Your task to perform on an android device: open chrome and create a bookmark for the current page Image 0: 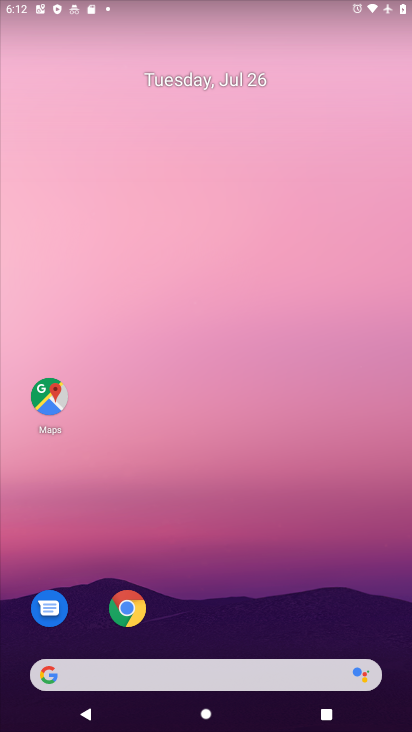
Step 0: press home button
Your task to perform on an android device: open chrome and create a bookmark for the current page Image 1: 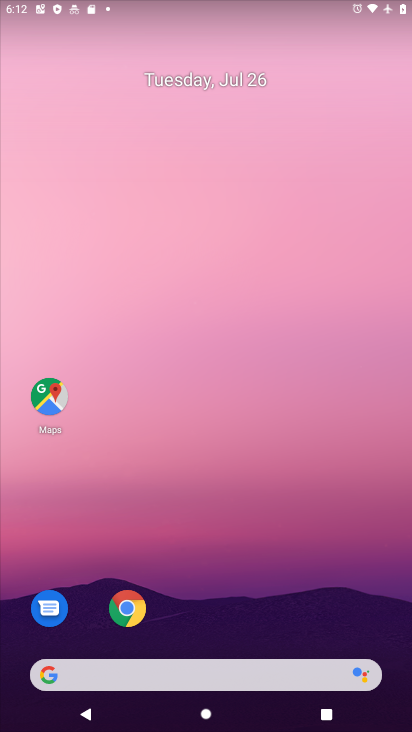
Step 1: drag from (205, 626) to (243, 117)
Your task to perform on an android device: open chrome and create a bookmark for the current page Image 2: 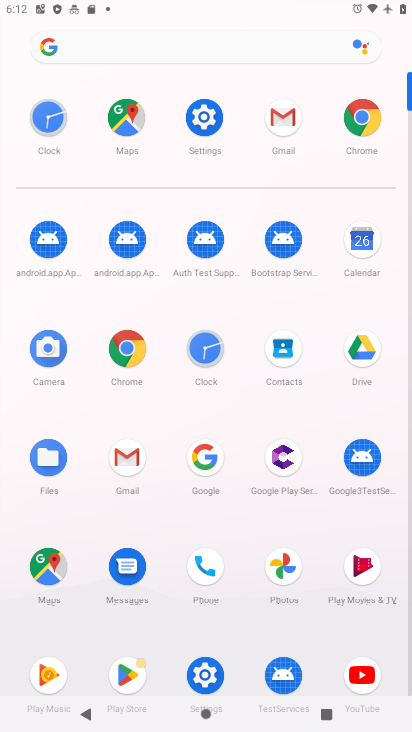
Step 2: click (367, 114)
Your task to perform on an android device: open chrome and create a bookmark for the current page Image 3: 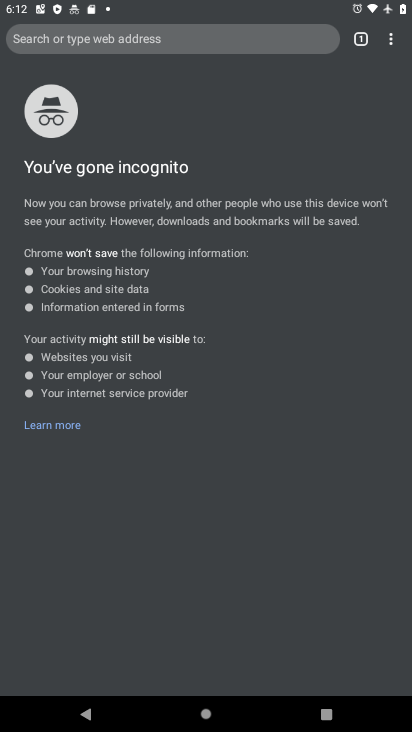
Step 3: task complete